Your task to perform on an android device: turn off location history Image 0: 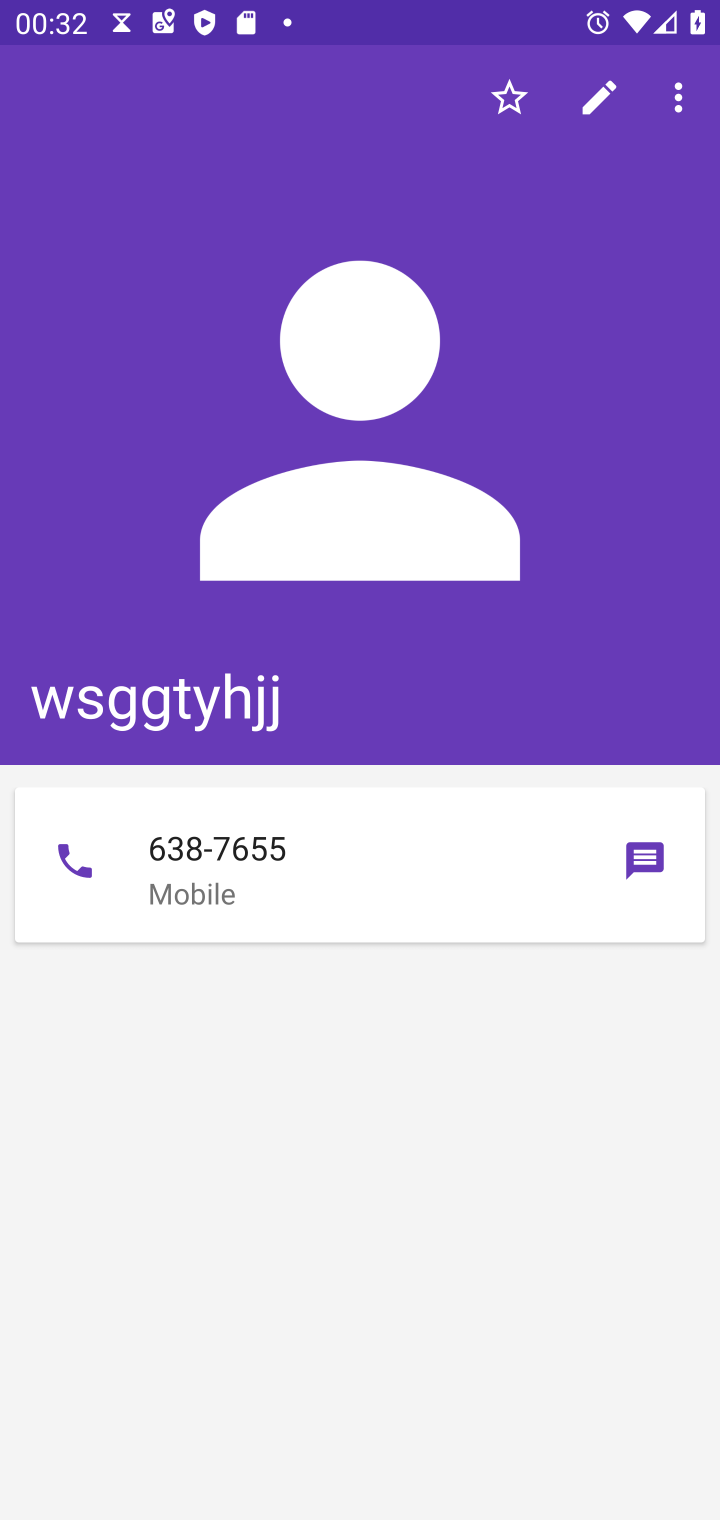
Step 0: press home button
Your task to perform on an android device: turn off location history Image 1: 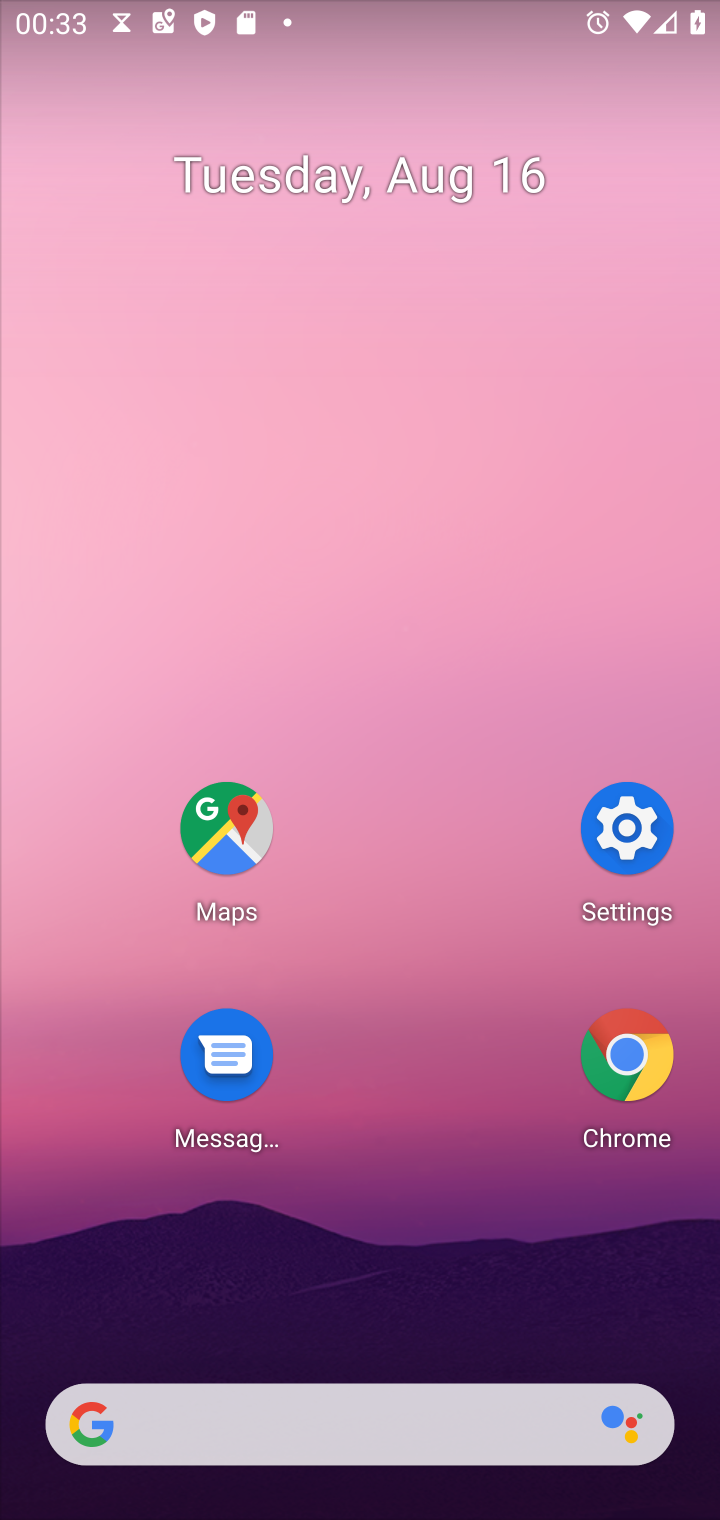
Step 1: click (217, 830)
Your task to perform on an android device: turn off location history Image 2: 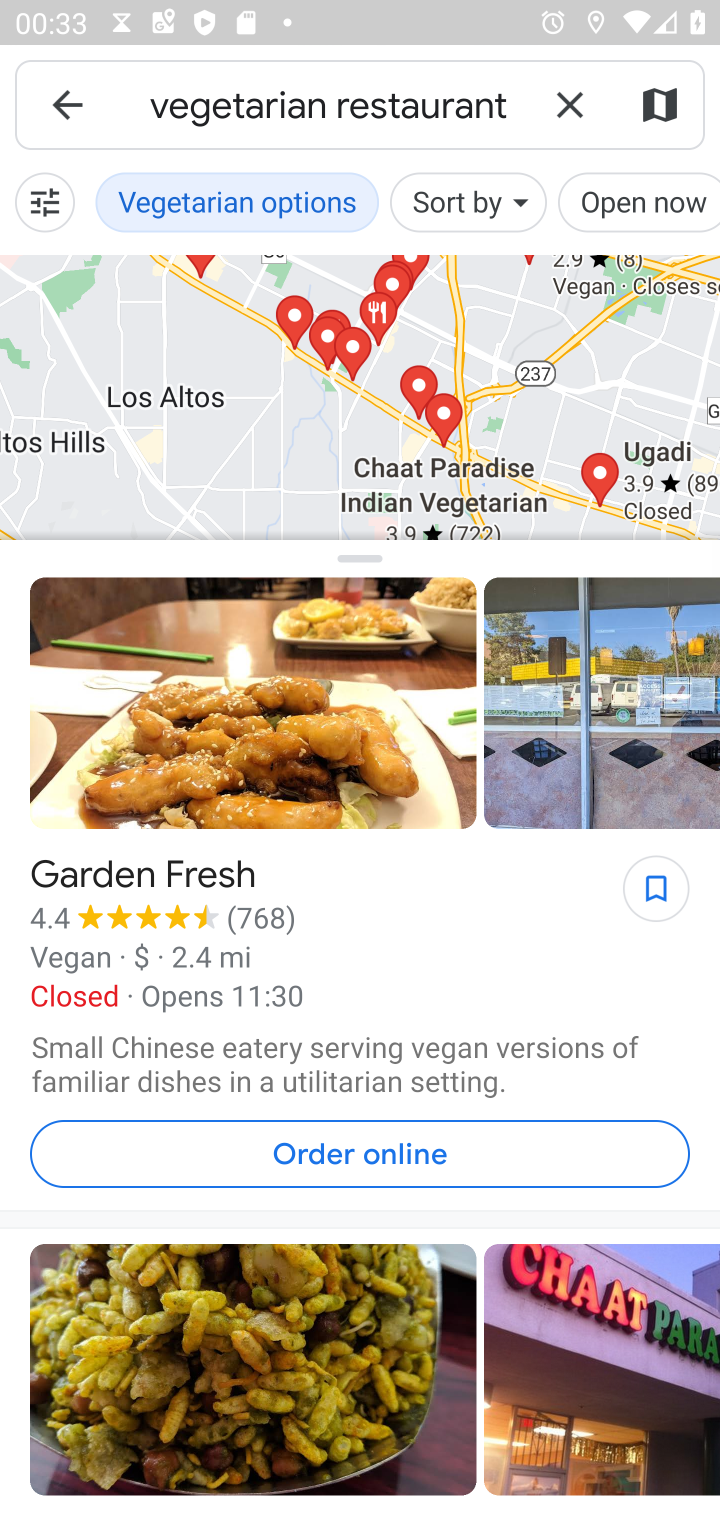
Step 2: press back button
Your task to perform on an android device: turn off location history Image 3: 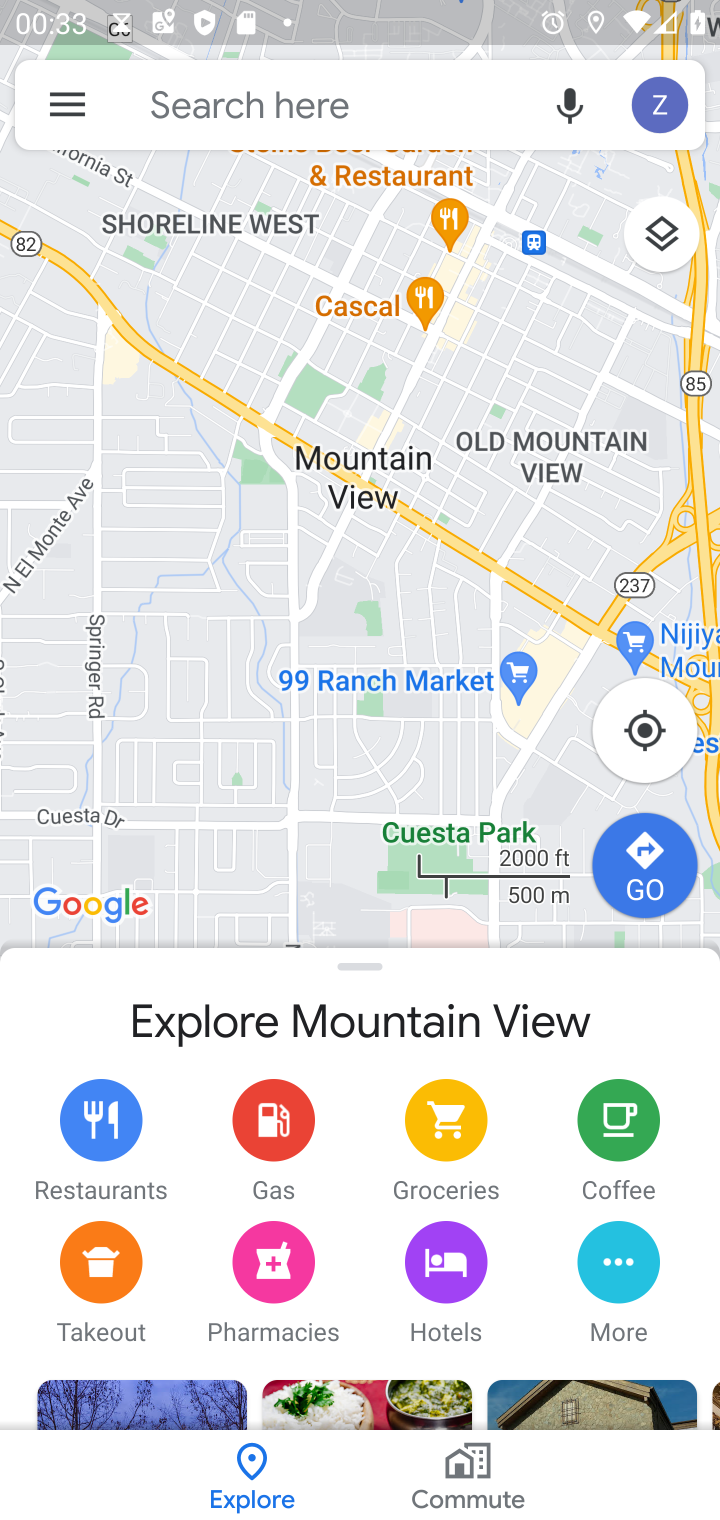
Step 3: click (68, 84)
Your task to perform on an android device: turn off location history Image 4: 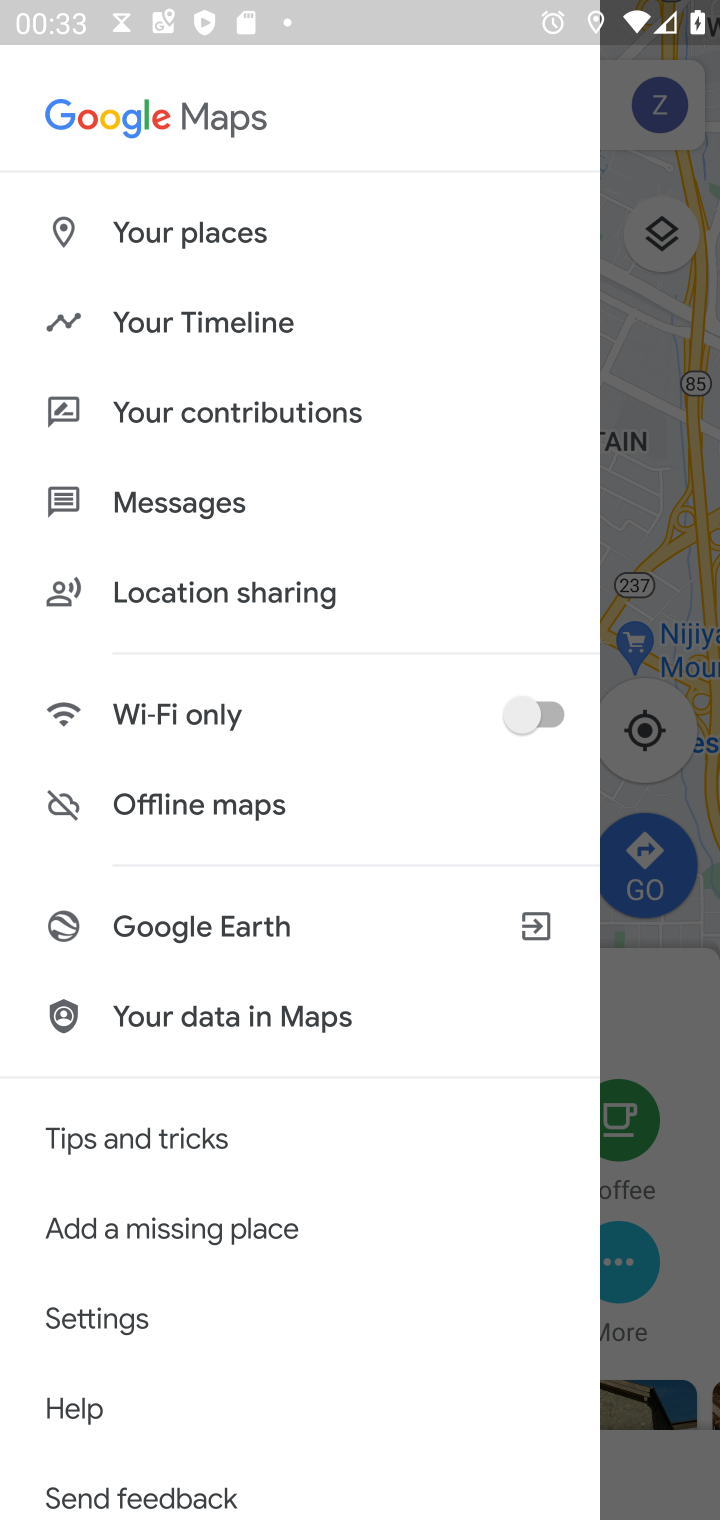
Step 4: click (269, 318)
Your task to perform on an android device: turn off location history Image 5: 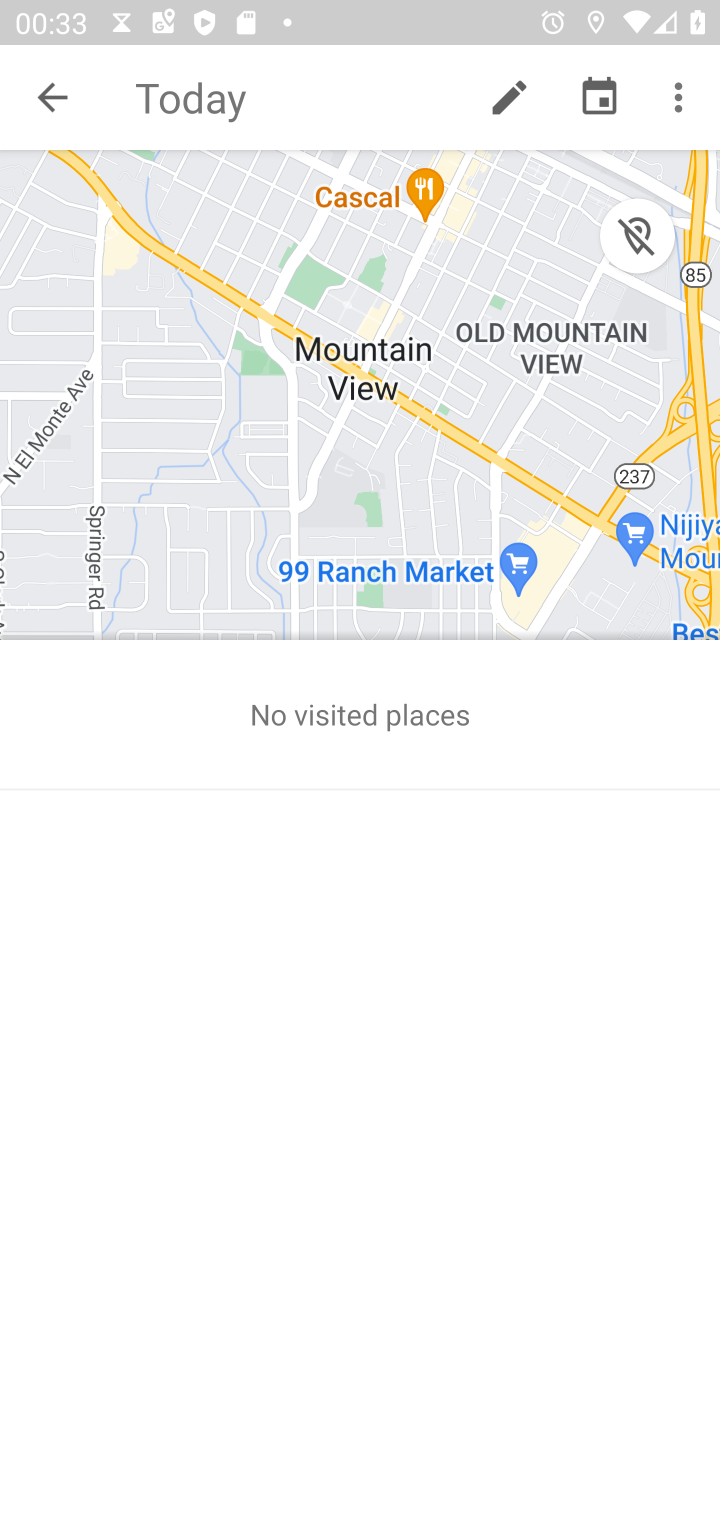
Step 5: click (676, 97)
Your task to perform on an android device: turn off location history Image 6: 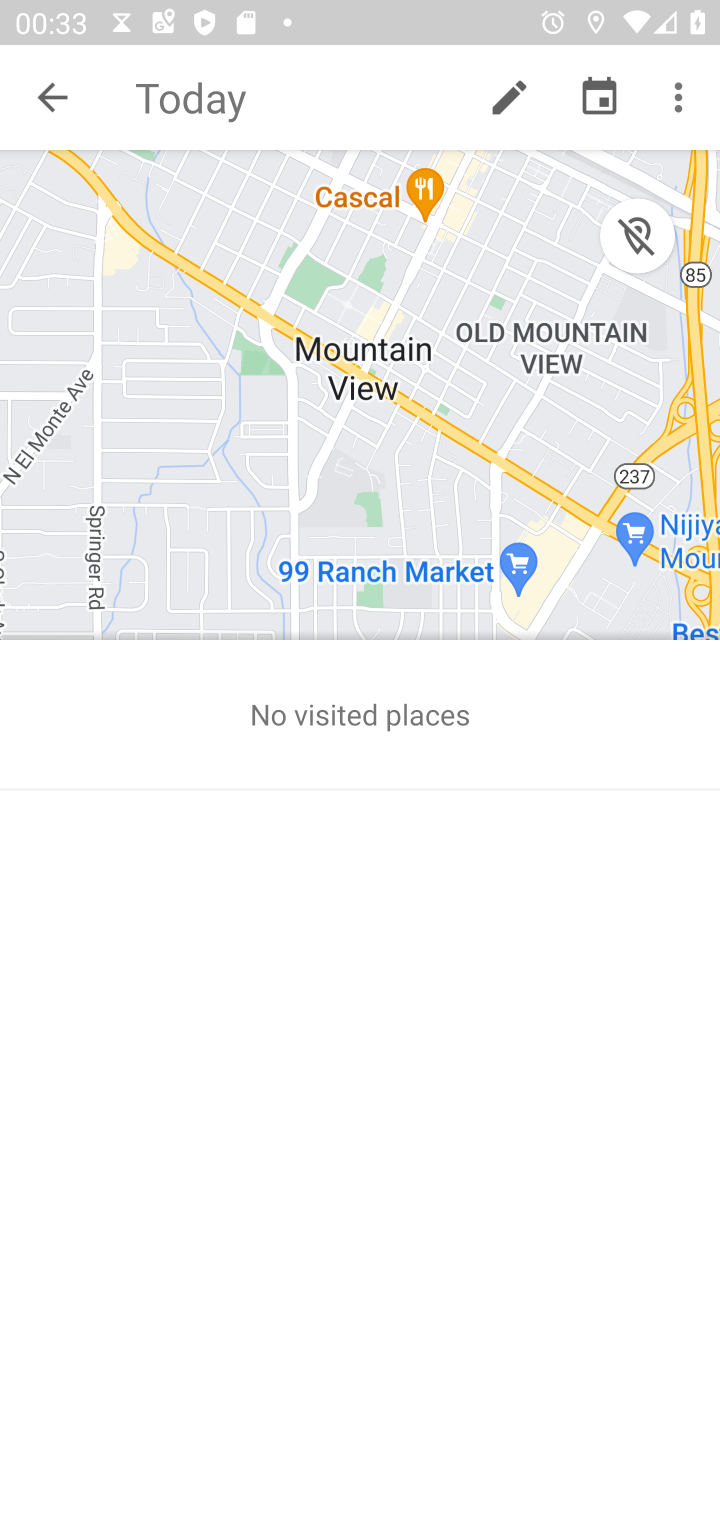
Step 6: click (673, 86)
Your task to perform on an android device: turn off location history Image 7: 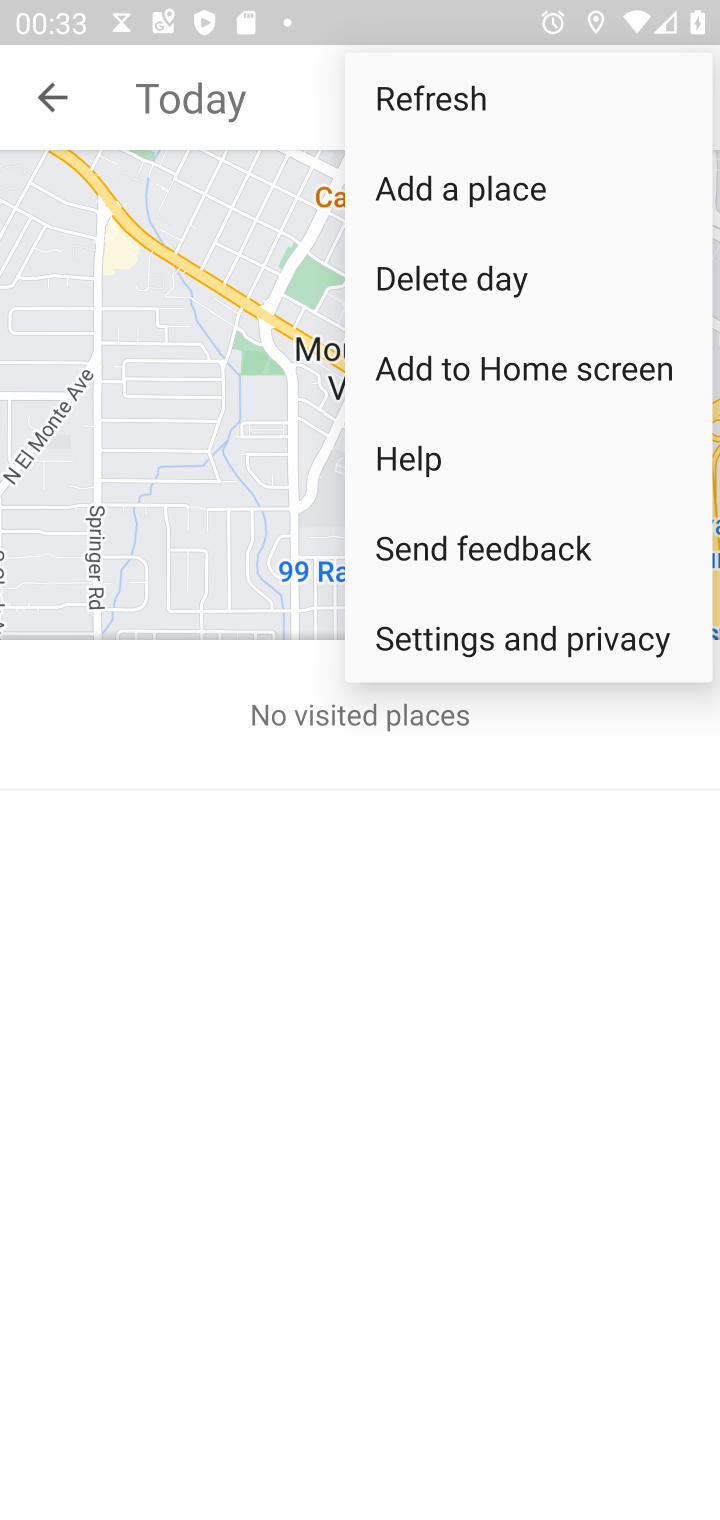
Step 7: click (467, 628)
Your task to perform on an android device: turn off location history Image 8: 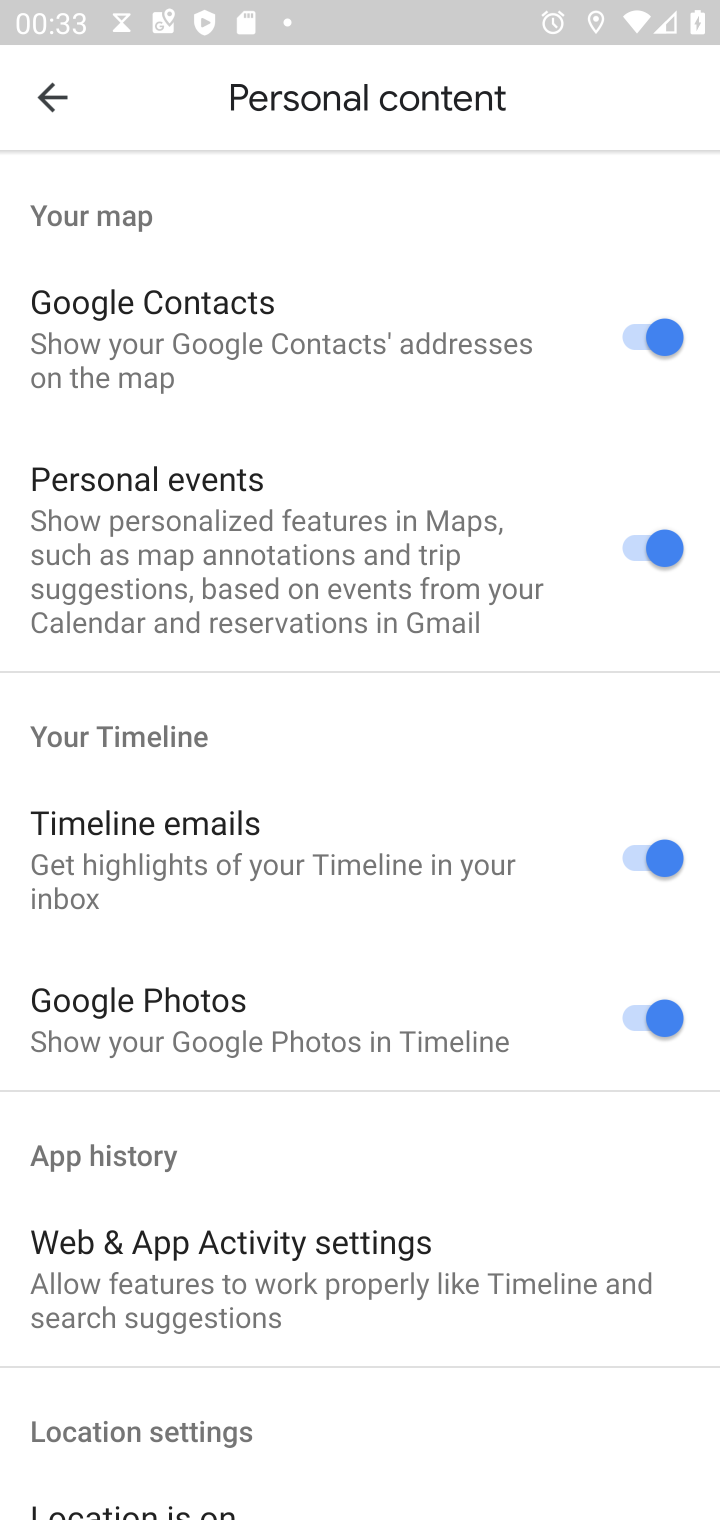
Step 8: drag from (381, 1158) to (468, 196)
Your task to perform on an android device: turn off location history Image 9: 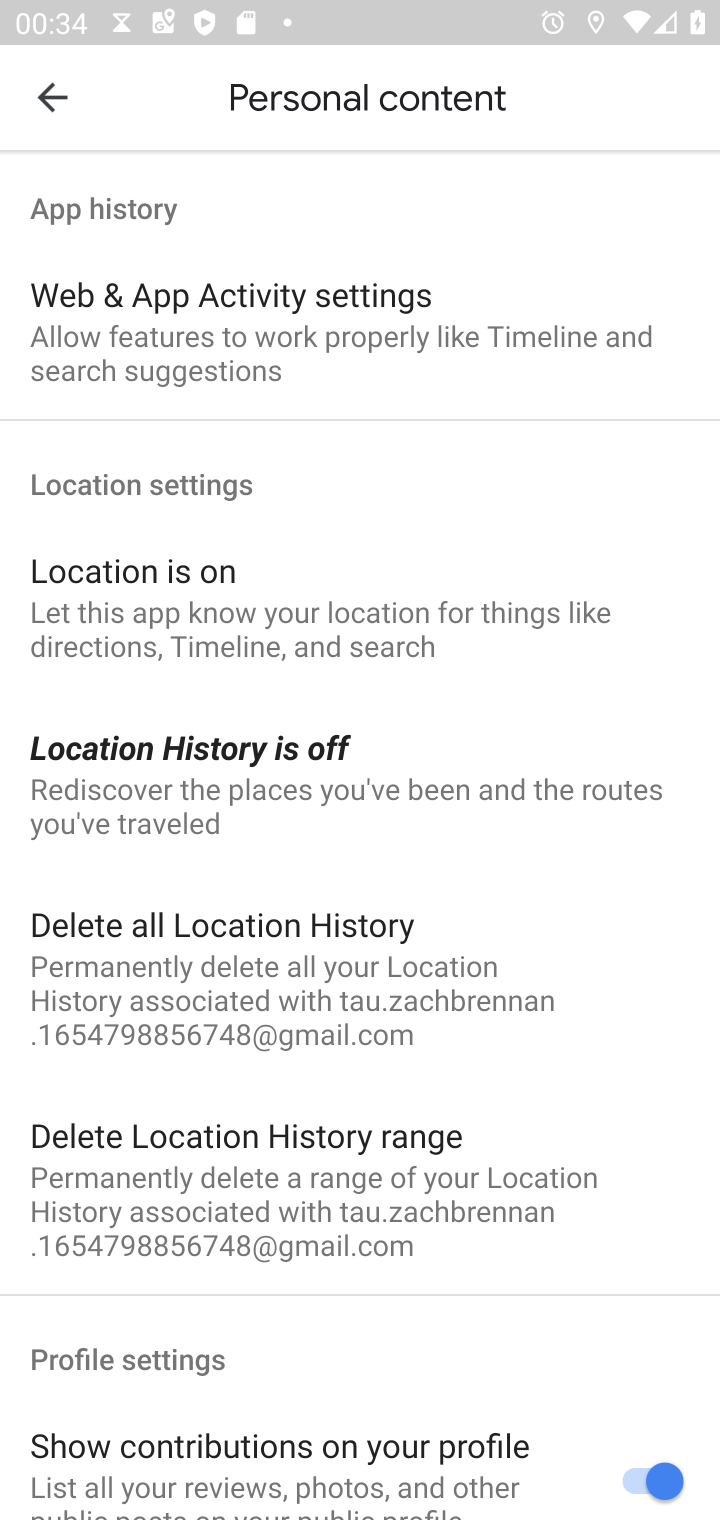
Step 9: click (264, 753)
Your task to perform on an android device: turn off location history Image 10: 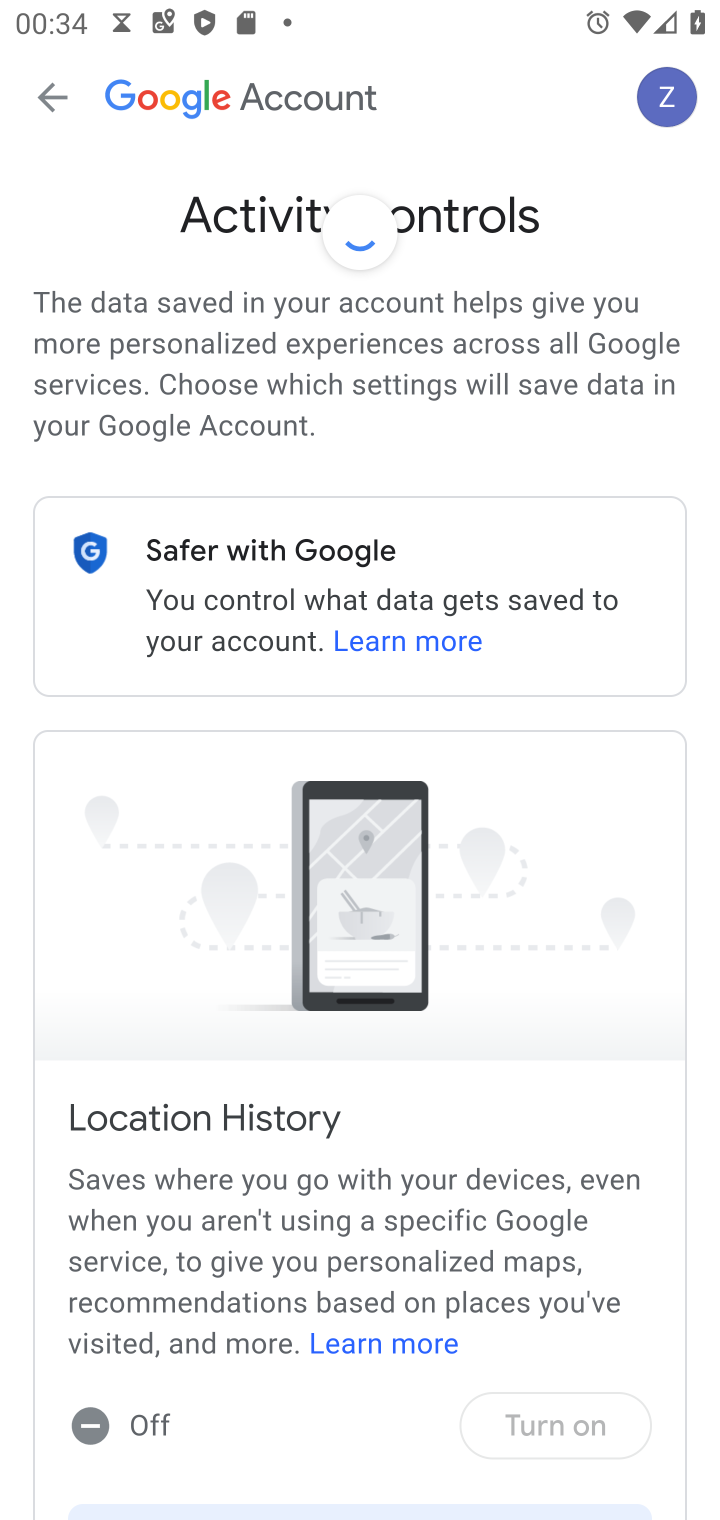
Step 10: task complete